Your task to perform on an android device: Open eBay Image 0: 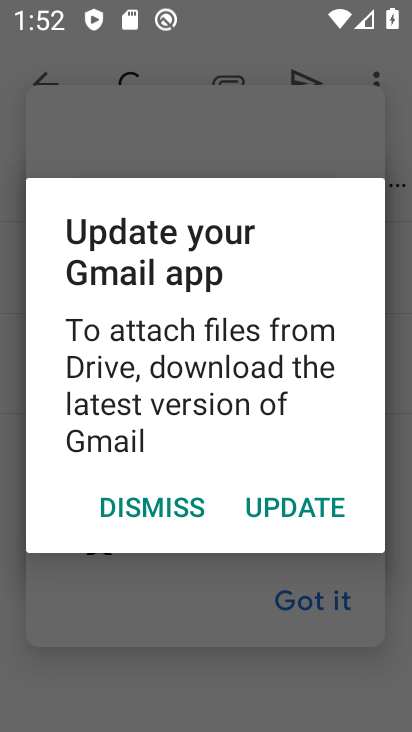
Step 0: press back button
Your task to perform on an android device: Open eBay Image 1: 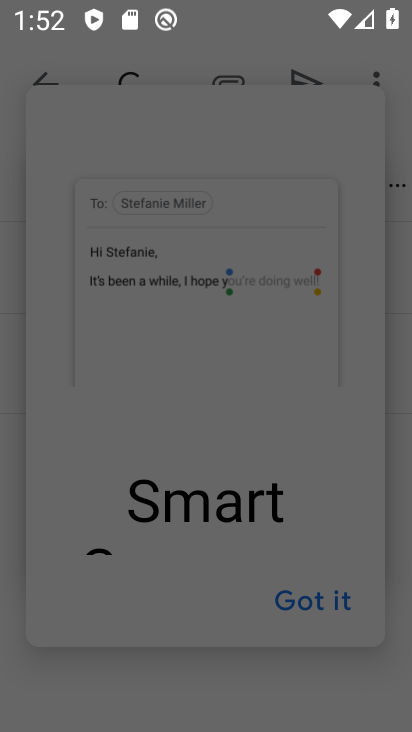
Step 1: press home button
Your task to perform on an android device: Open eBay Image 2: 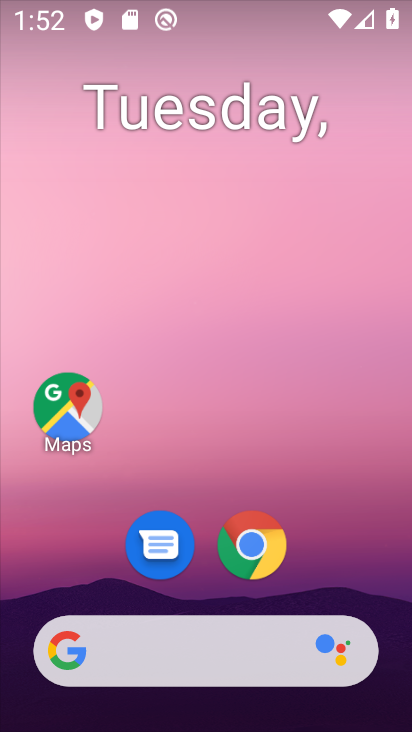
Step 2: click (240, 539)
Your task to perform on an android device: Open eBay Image 3: 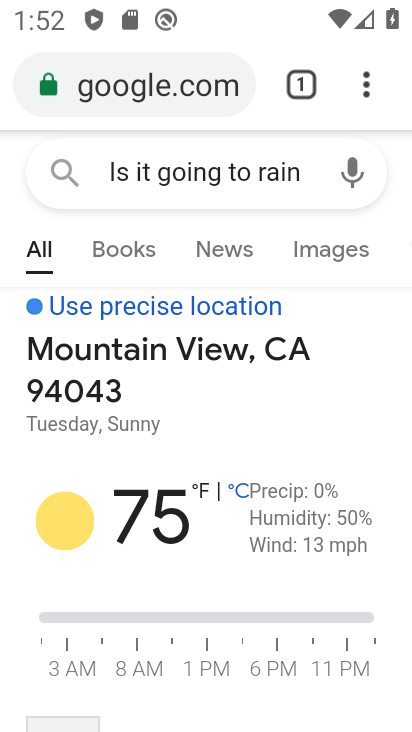
Step 3: click (162, 89)
Your task to perform on an android device: Open eBay Image 4: 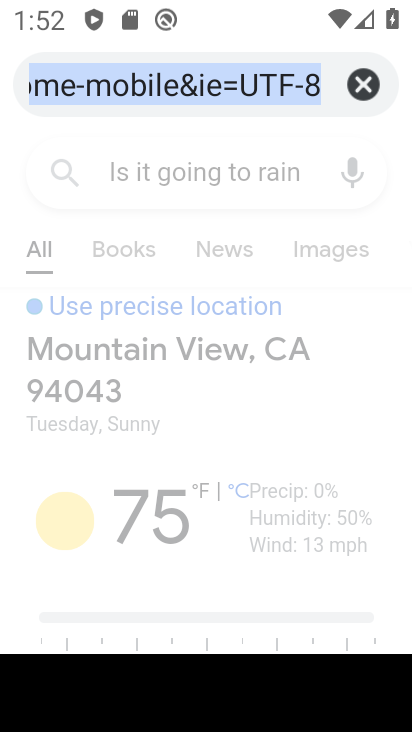
Step 4: click (363, 76)
Your task to perform on an android device: Open eBay Image 5: 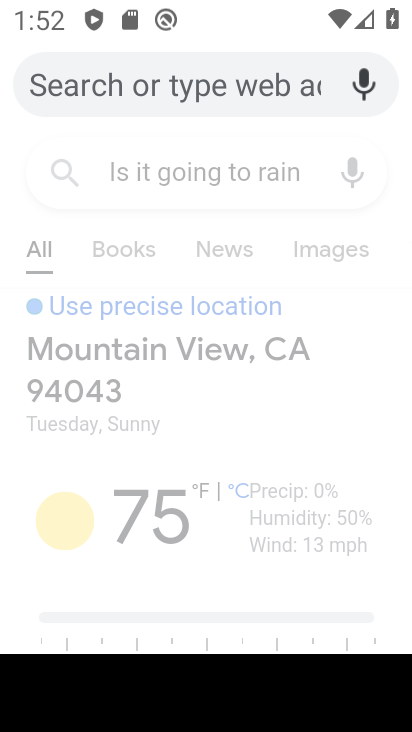
Step 5: type "eBay"
Your task to perform on an android device: Open eBay Image 6: 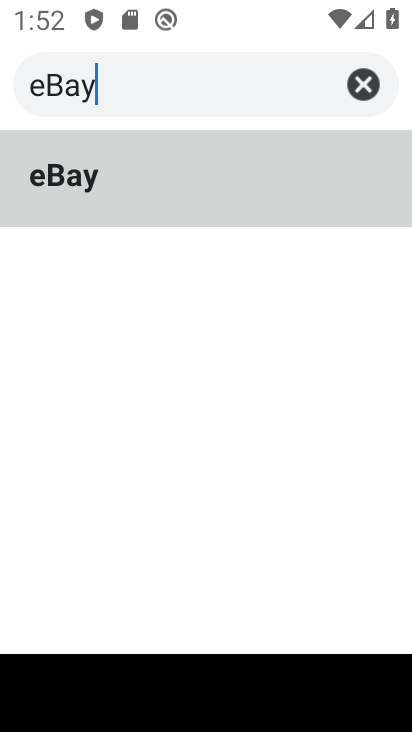
Step 6: type ""
Your task to perform on an android device: Open eBay Image 7: 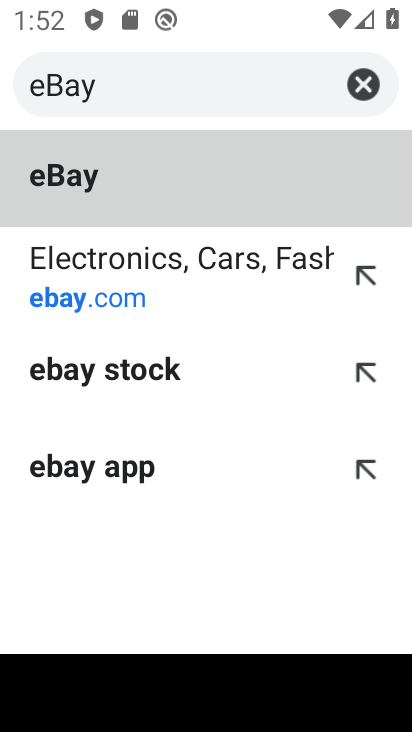
Step 7: click (81, 272)
Your task to perform on an android device: Open eBay Image 8: 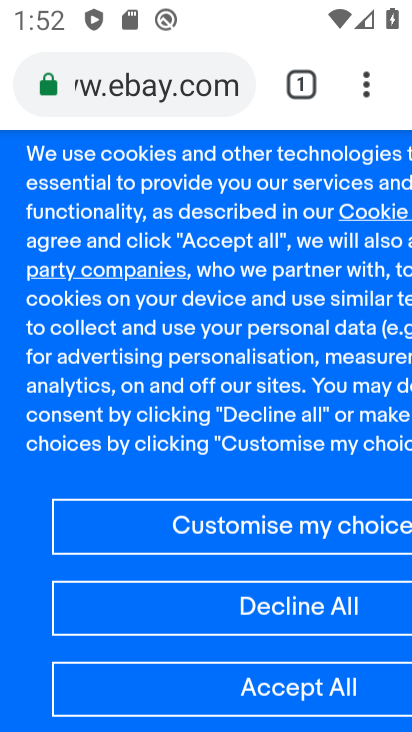
Step 8: task complete